Your task to perform on an android device: Clear the cart on newegg. Image 0: 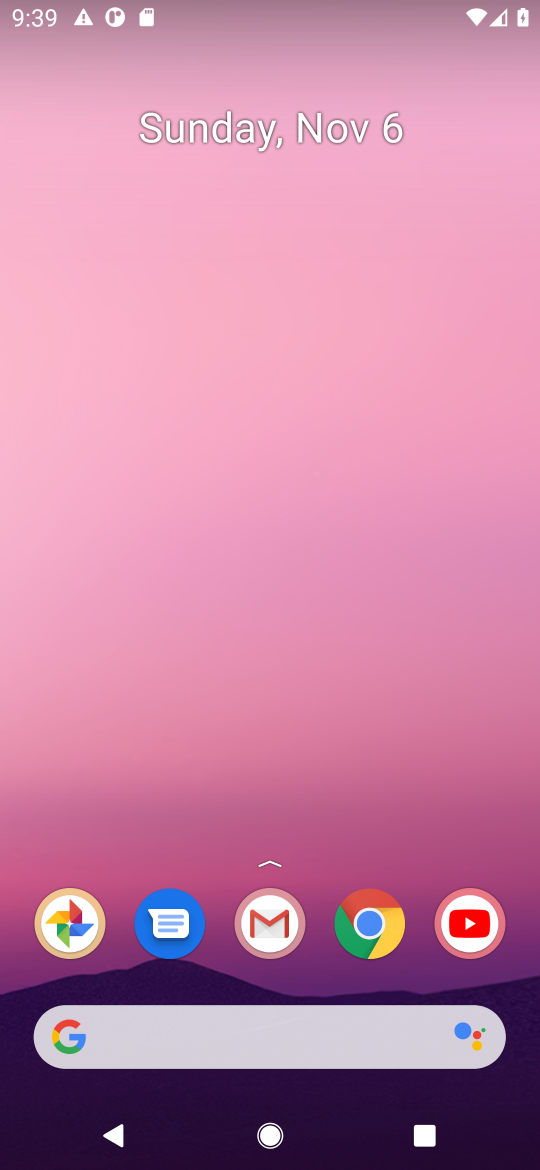
Step 0: click (366, 919)
Your task to perform on an android device: Clear the cart on newegg. Image 1: 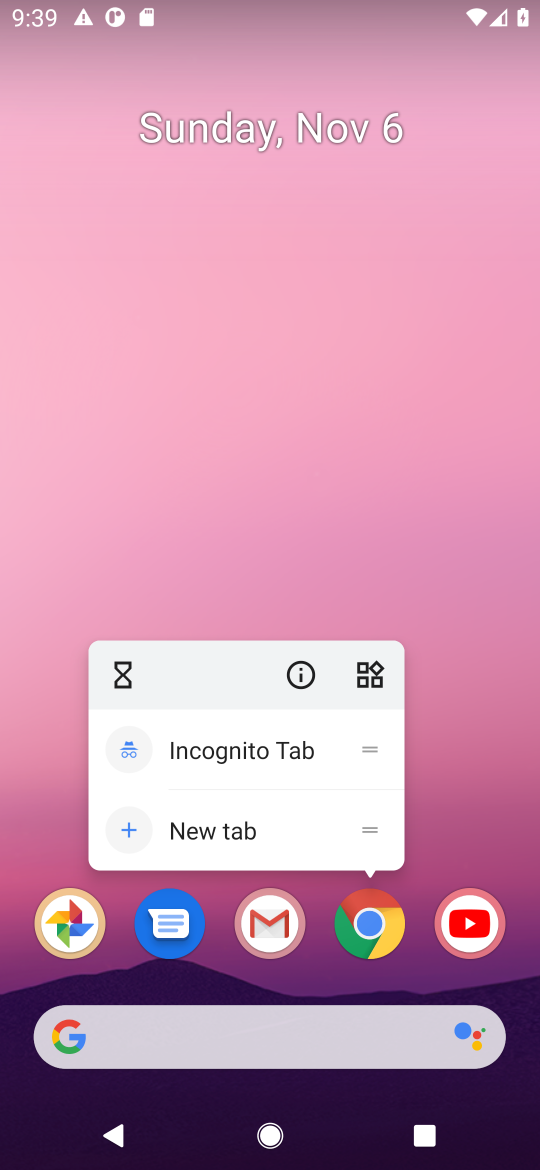
Step 1: click (366, 919)
Your task to perform on an android device: Clear the cart on newegg. Image 2: 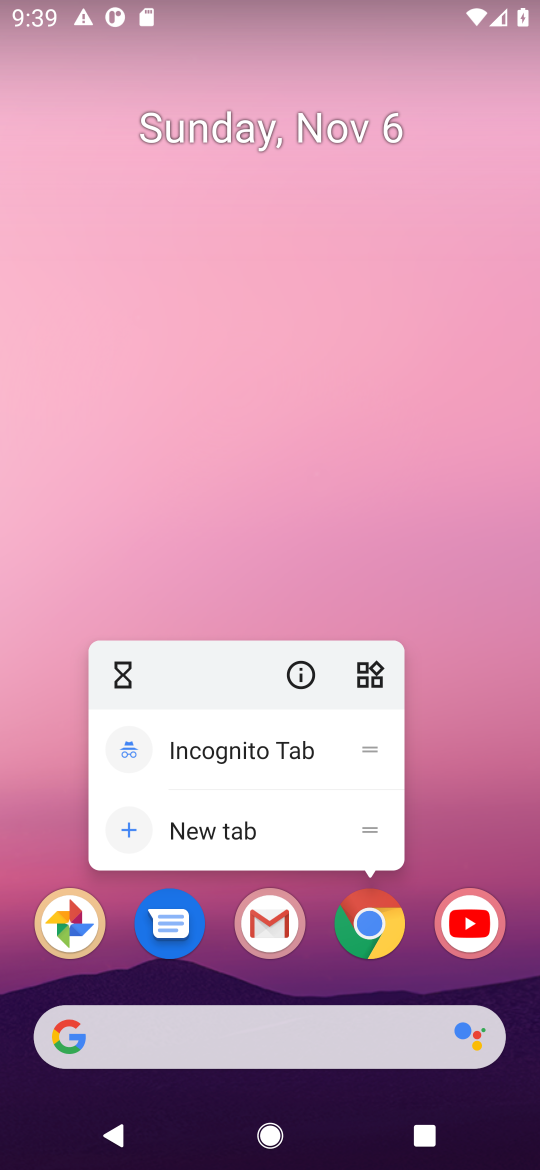
Step 2: click (366, 924)
Your task to perform on an android device: Clear the cart on newegg. Image 3: 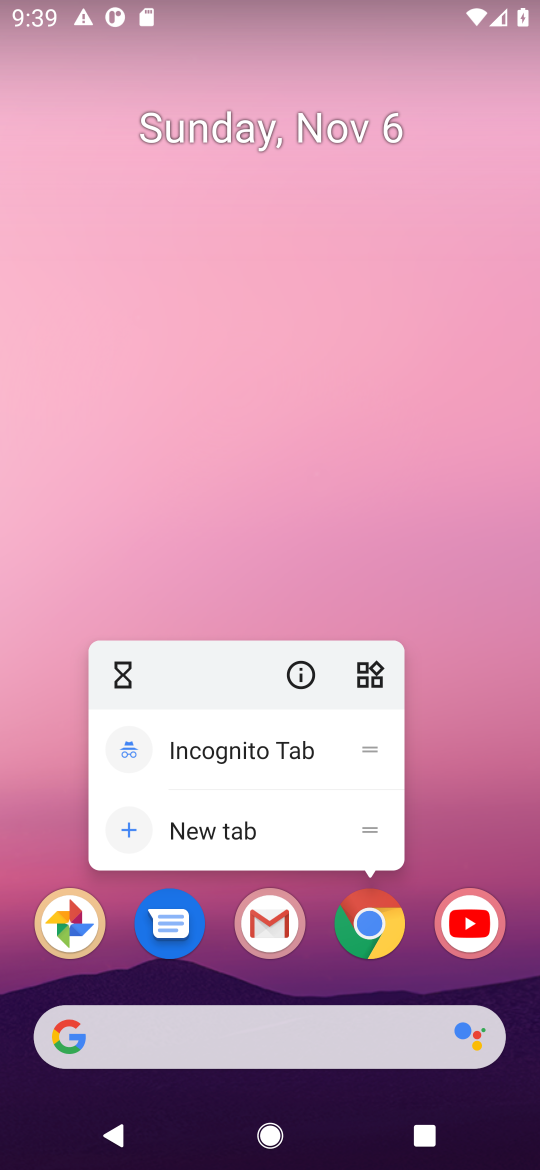
Step 3: click (366, 924)
Your task to perform on an android device: Clear the cart on newegg. Image 4: 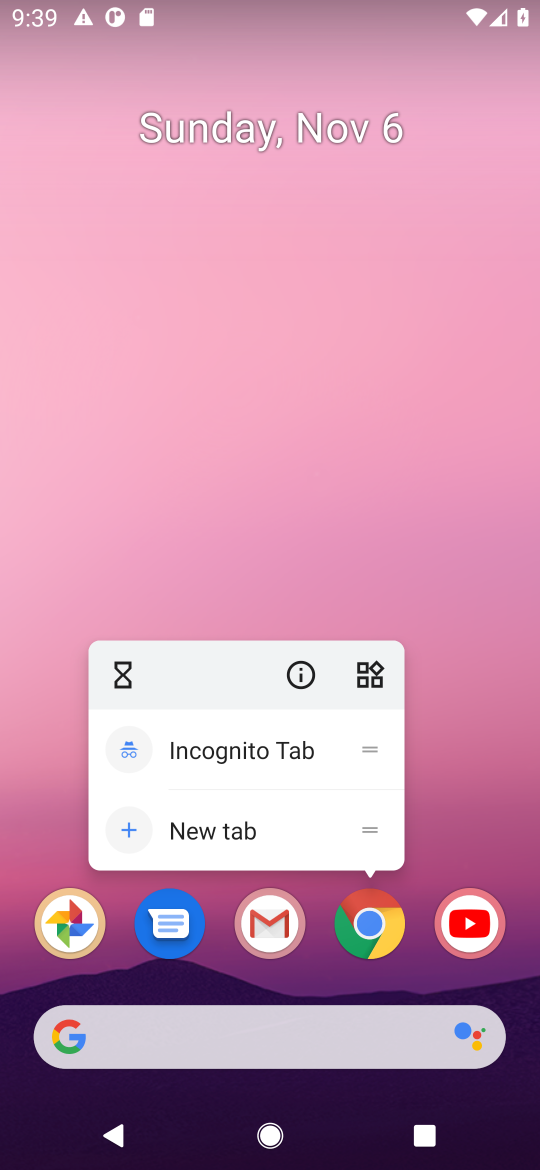
Step 4: click (373, 938)
Your task to perform on an android device: Clear the cart on newegg. Image 5: 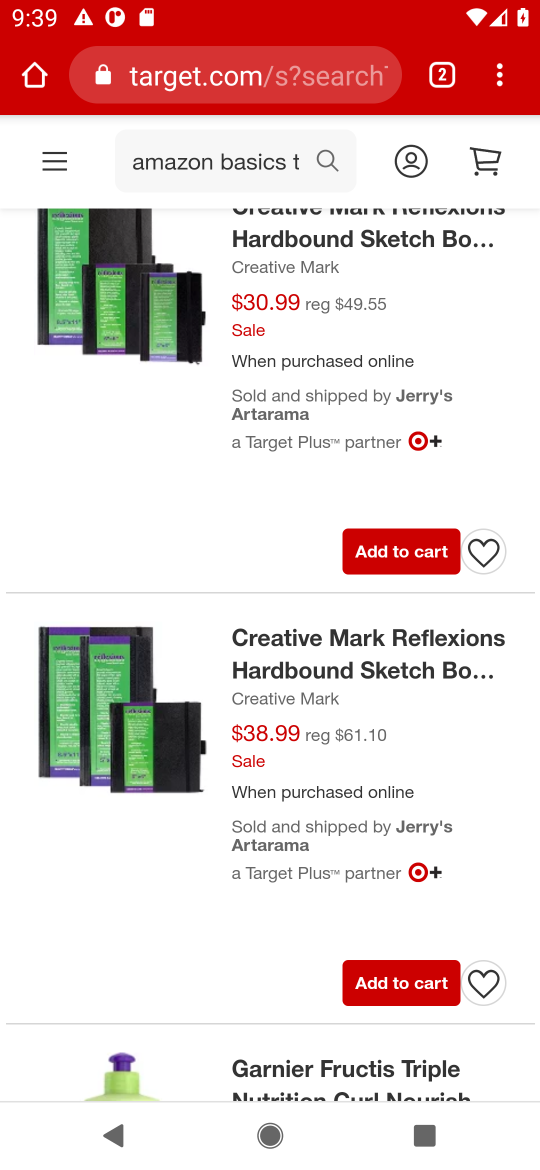
Step 5: click (254, 66)
Your task to perform on an android device: Clear the cart on newegg. Image 6: 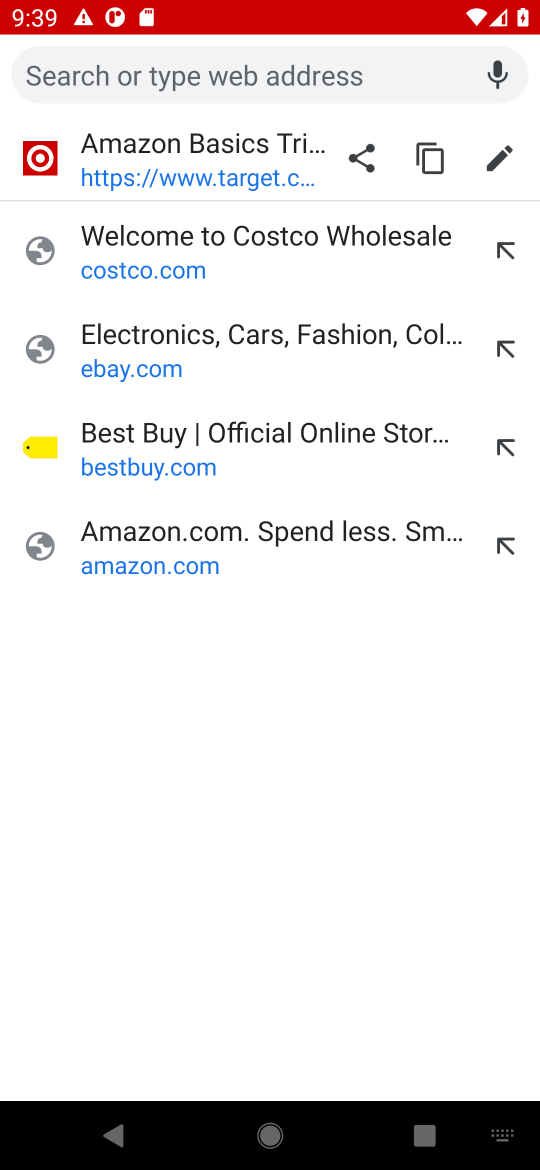
Step 6: type "newegg.com"
Your task to perform on an android device: Clear the cart on newegg. Image 7: 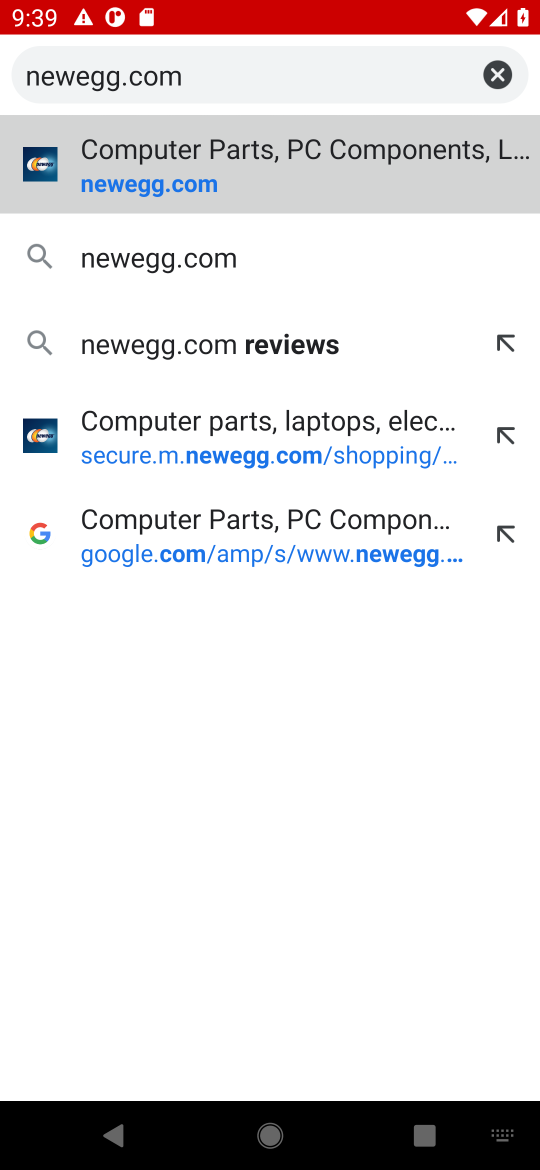
Step 7: click (168, 176)
Your task to perform on an android device: Clear the cart on newegg. Image 8: 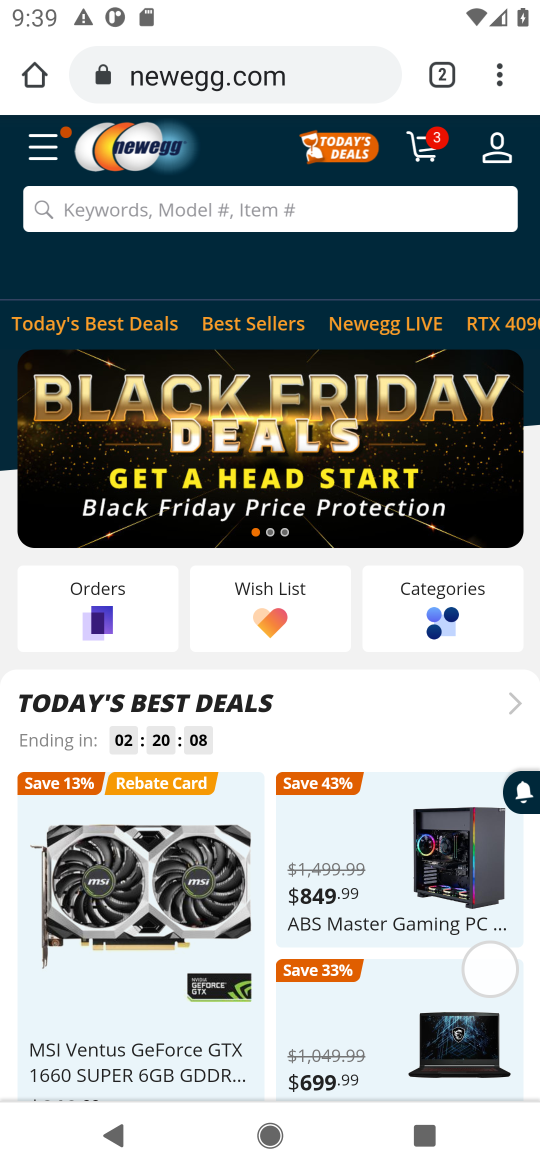
Step 8: click (426, 145)
Your task to perform on an android device: Clear the cart on newegg. Image 9: 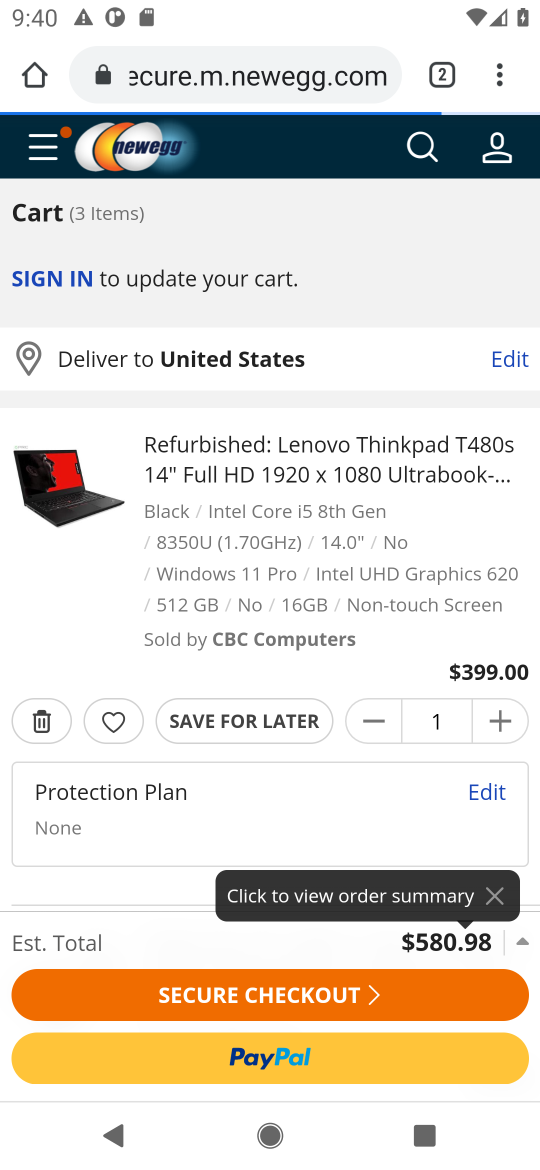
Step 9: click (55, 723)
Your task to perform on an android device: Clear the cart on newegg. Image 10: 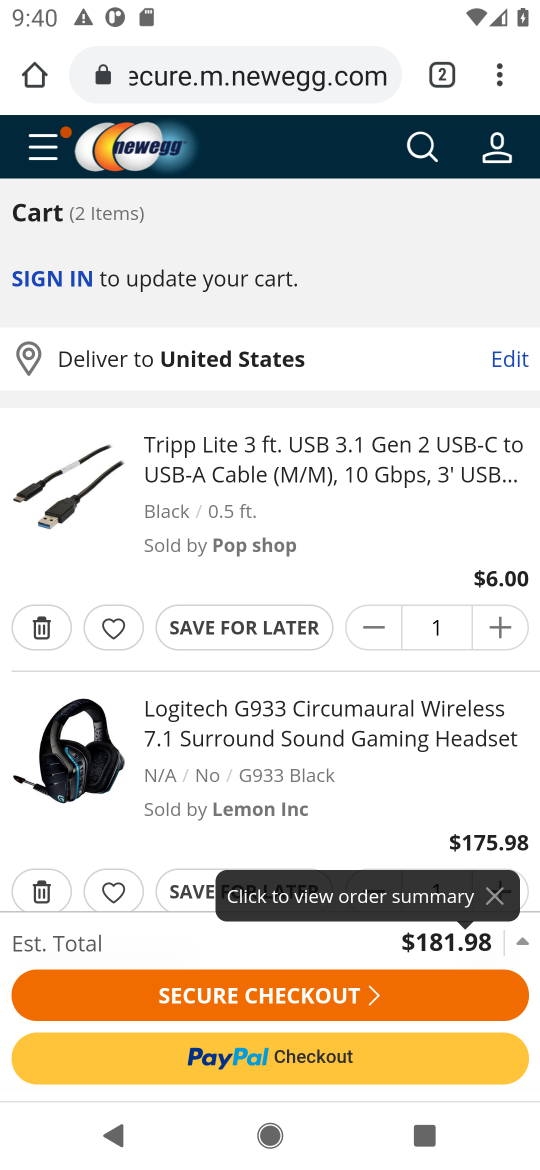
Step 10: click (52, 623)
Your task to perform on an android device: Clear the cart on newegg. Image 11: 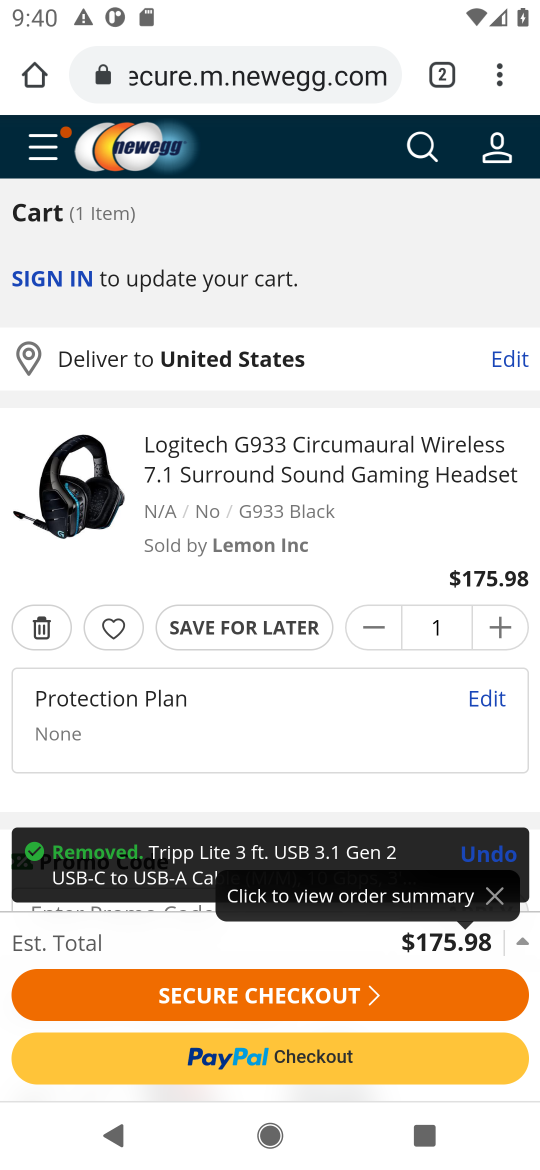
Step 11: click (47, 627)
Your task to perform on an android device: Clear the cart on newegg. Image 12: 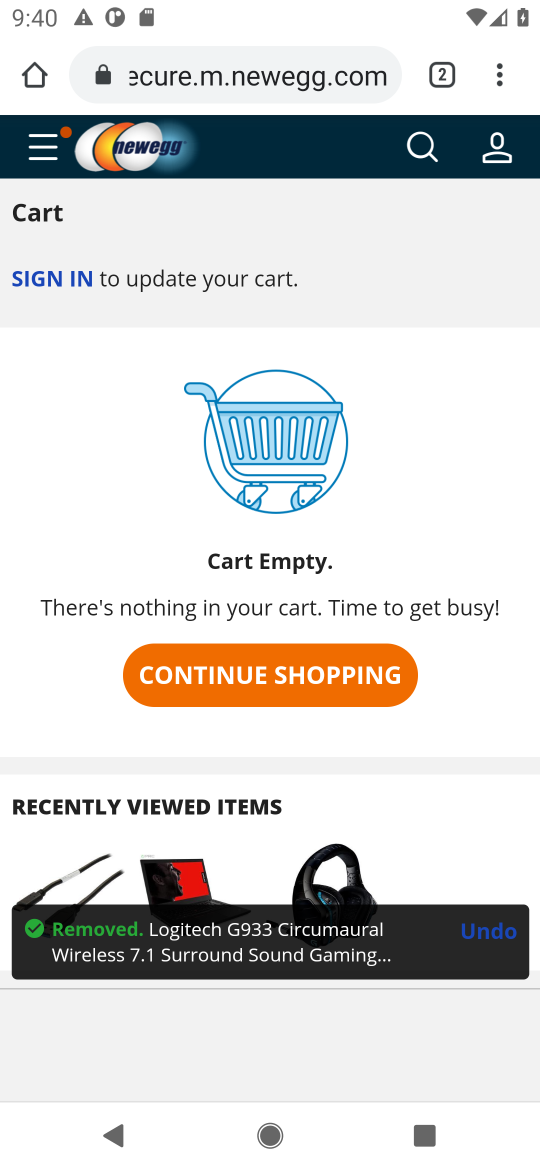
Step 12: task complete